Your task to perform on an android device: Open my contact list Image 0: 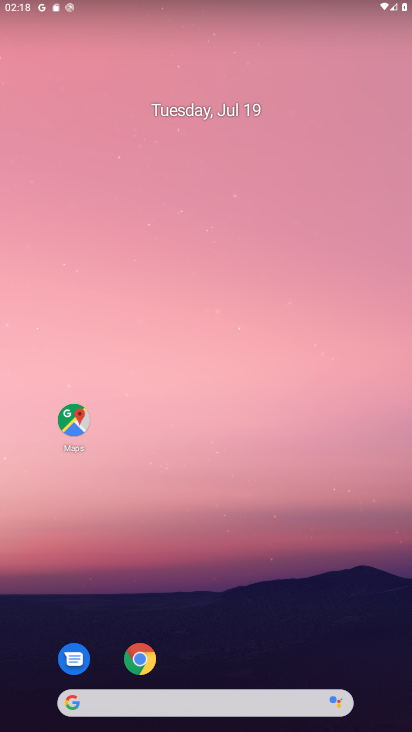
Step 0: click (284, 170)
Your task to perform on an android device: Open my contact list Image 1: 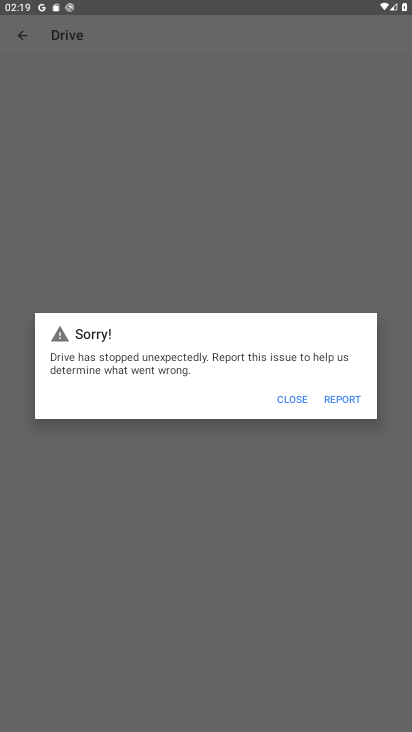
Step 1: press home button
Your task to perform on an android device: Open my contact list Image 2: 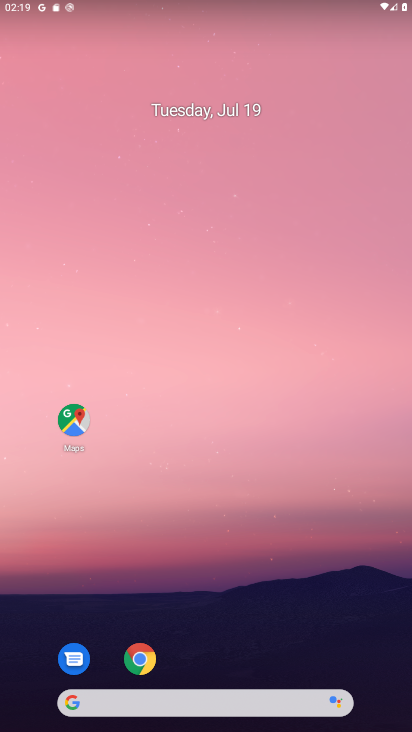
Step 2: drag from (192, 656) to (202, 258)
Your task to perform on an android device: Open my contact list Image 3: 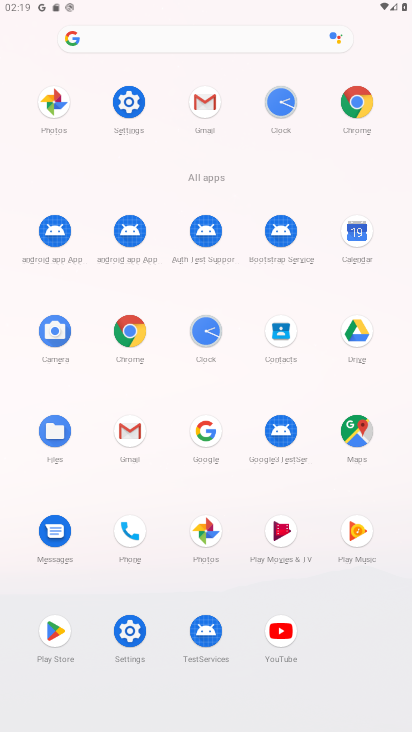
Step 3: click (278, 334)
Your task to perform on an android device: Open my contact list Image 4: 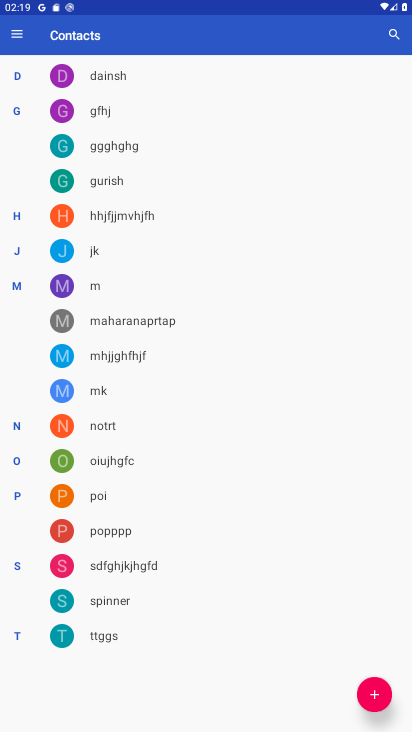
Step 4: task complete